Your task to perform on an android device: check storage Image 0: 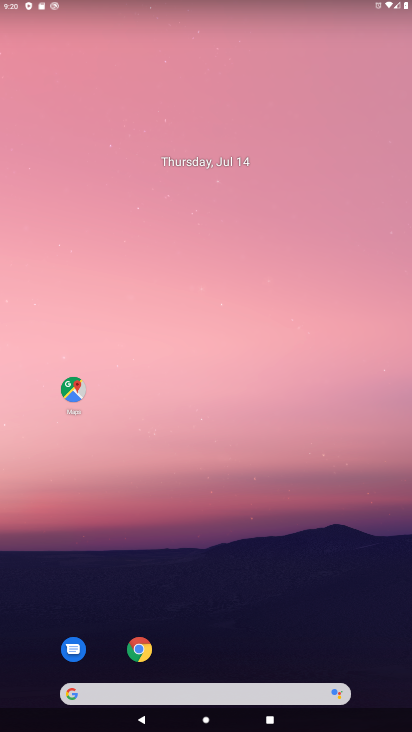
Step 0: drag from (171, 710) to (223, 24)
Your task to perform on an android device: check storage Image 1: 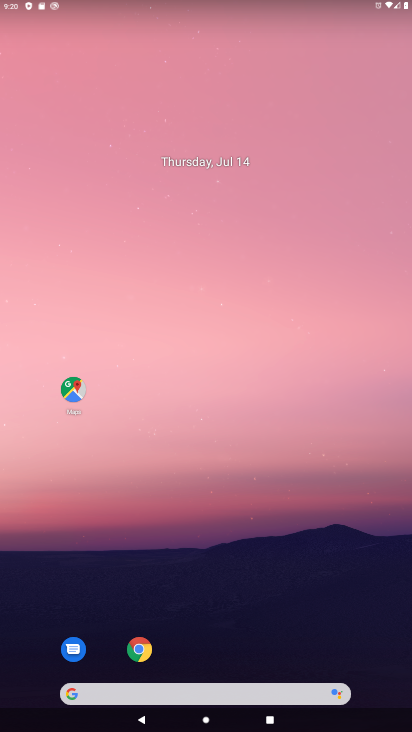
Step 1: drag from (165, 676) to (195, 33)
Your task to perform on an android device: check storage Image 2: 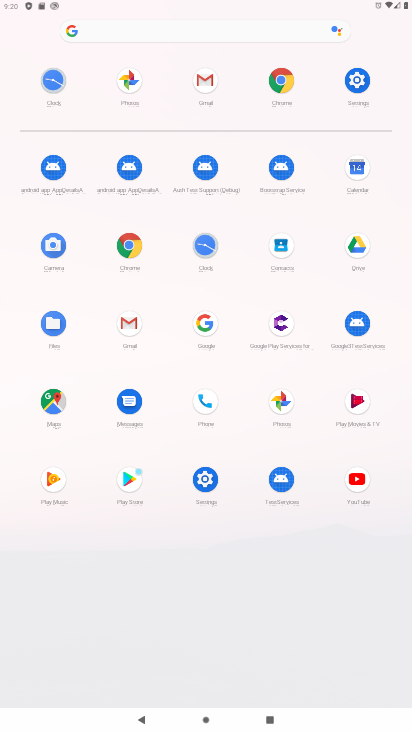
Step 2: click (361, 83)
Your task to perform on an android device: check storage Image 3: 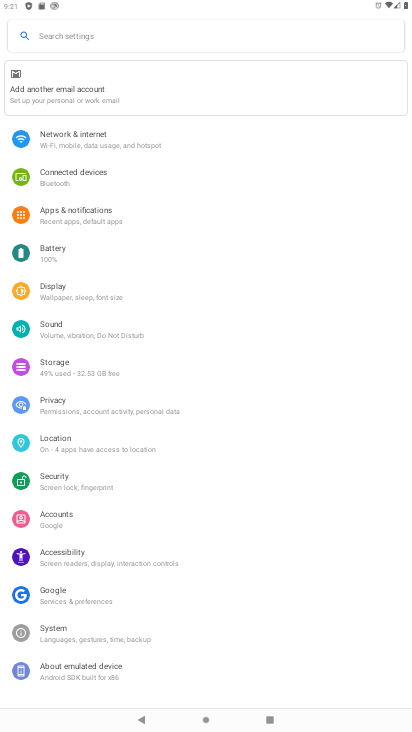
Step 3: click (145, 368)
Your task to perform on an android device: check storage Image 4: 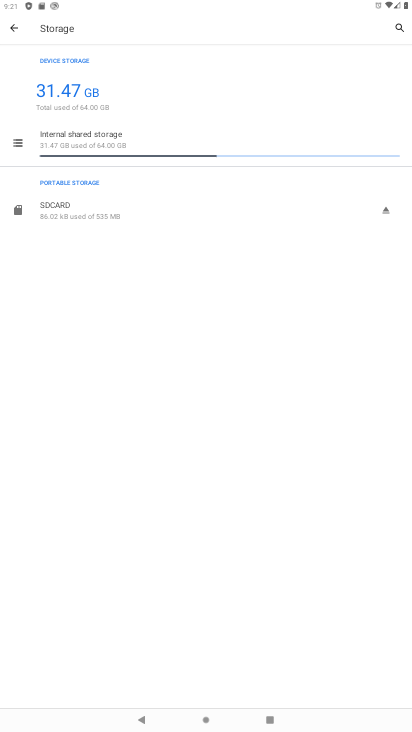
Step 4: task complete